Your task to perform on an android device: move an email to a new category in the gmail app Image 0: 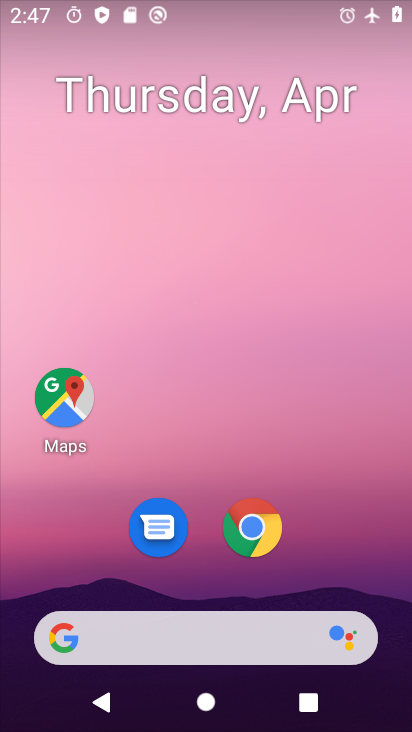
Step 0: drag from (353, 526) to (279, 79)
Your task to perform on an android device: move an email to a new category in the gmail app Image 1: 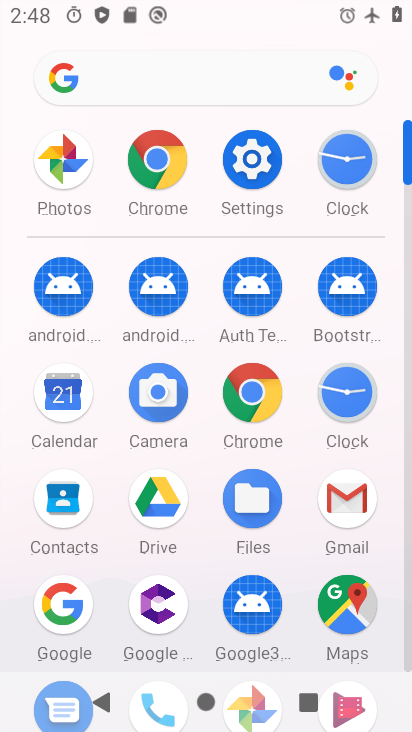
Step 1: click (363, 508)
Your task to perform on an android device: move an email to a new category in the gmail app Image 2: 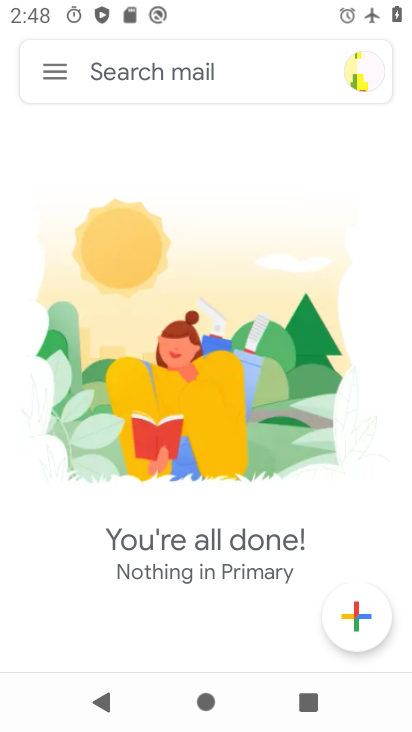
Step 2: click (52, 81)
Your task to perform on an android device: move an email to a new category in the gmail app Image 3: 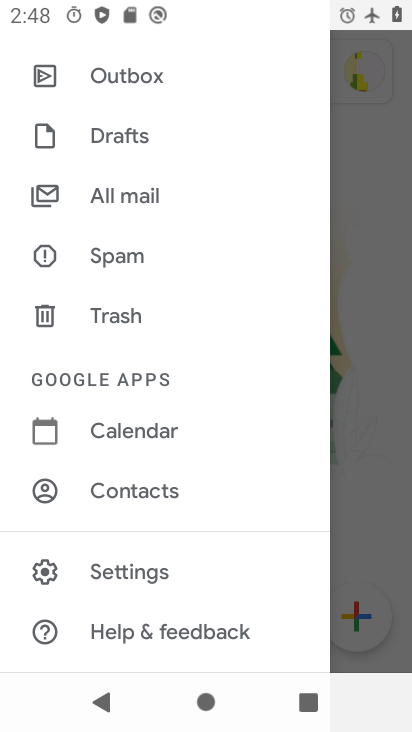
Step 3: click (130, 192)
Your task to perform on an android device: move an email to a new category in the gmail app Image 4: 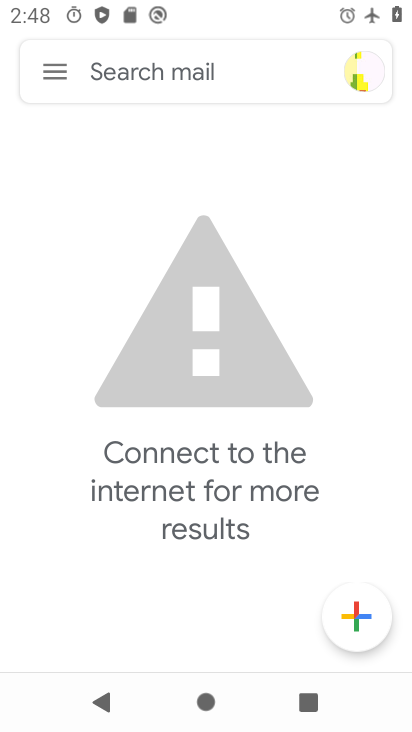
Step 4: task complete